Your task to perform on an android device: Open network settings Image 0: 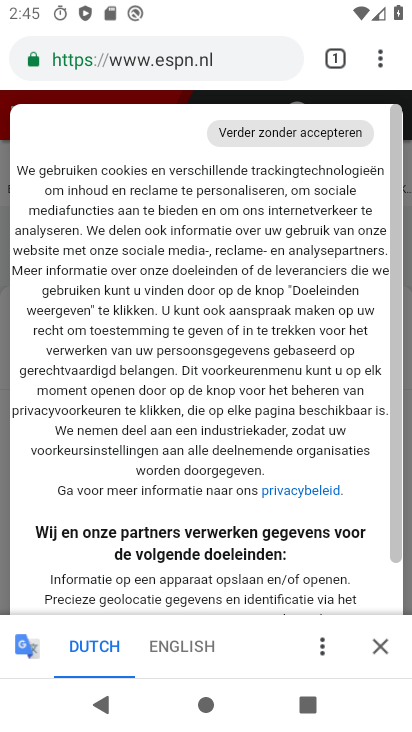
Step 0: press home button
Your task to perform on an android device: Open network settings Image 1: 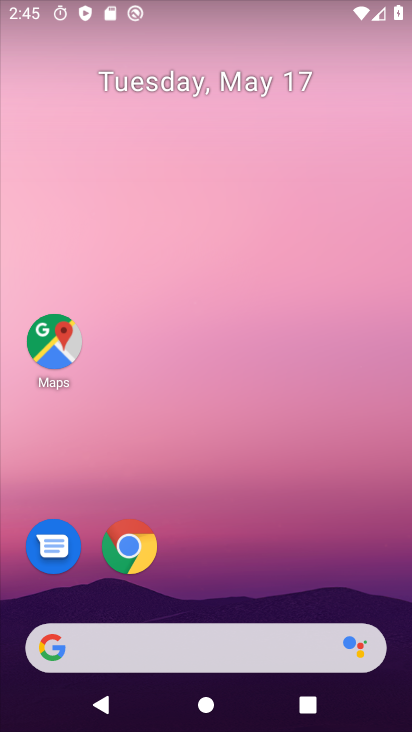
Step 1: drag from (189, 570) to (261, 100)
Your task to perform on an android device: Open network settings Image 2: 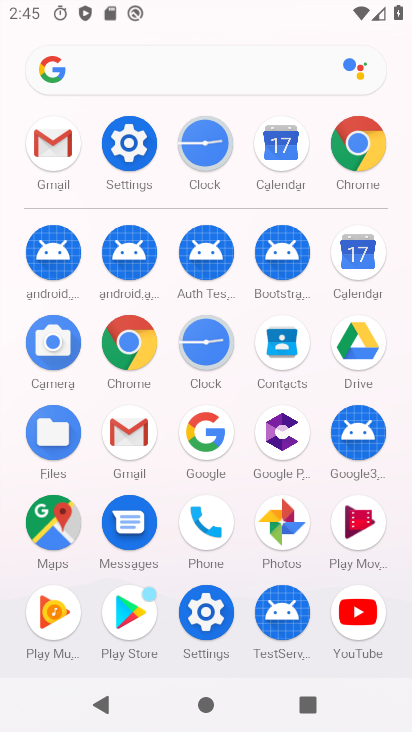
Step 2: click (124, 168)
Your task to perform on an android device: Open network settings Image 3: 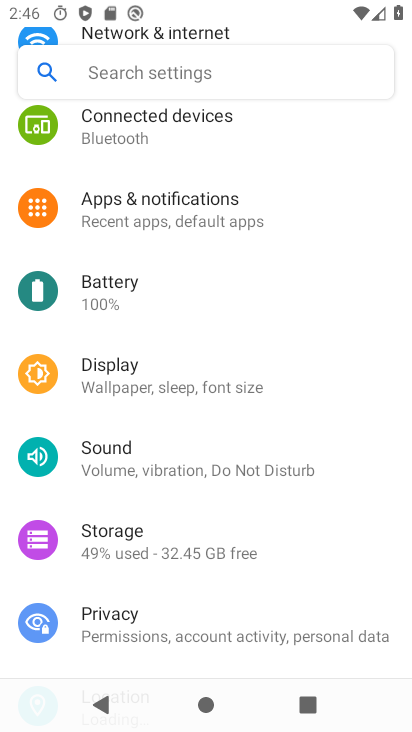
Step 3: drag from (172, 291) to (95, 630)
Your task to perform on an android device: Open network settings Image 4: 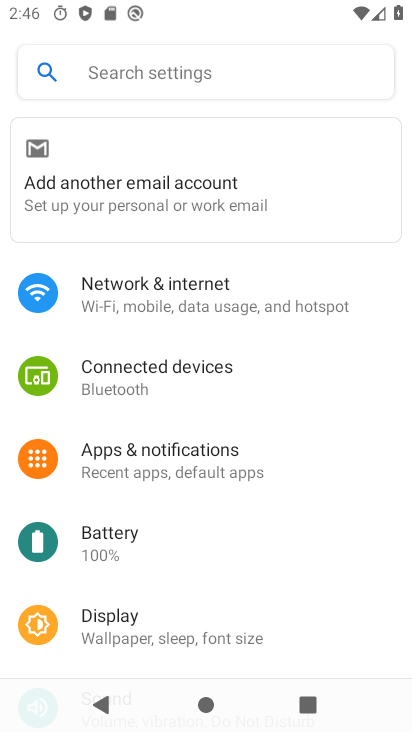
Step 4: click (214, 301)
Your task to perform on an android device: Open network settings Image 5: 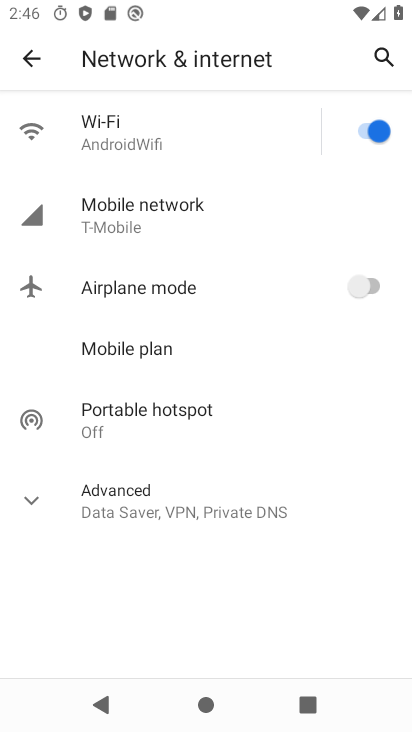
Step 5: click (200, 209)
Your task to perform on an android device: Open network settings Image 6: 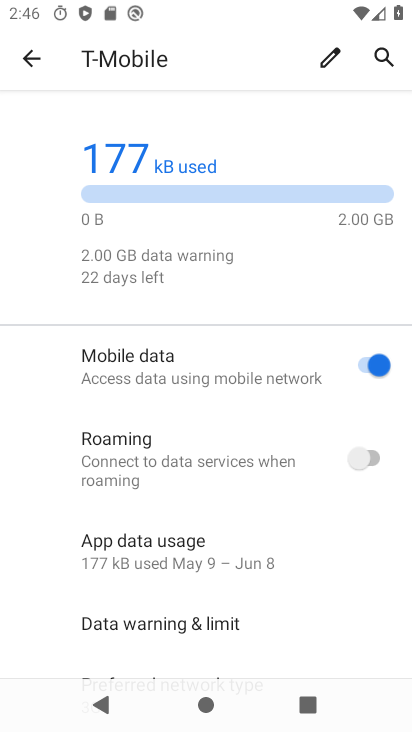
Step 6: task complete